Your task to perform on an android device: open app "WhatsApp Messenger" (install if not already installed) and go to login screen Image 0: 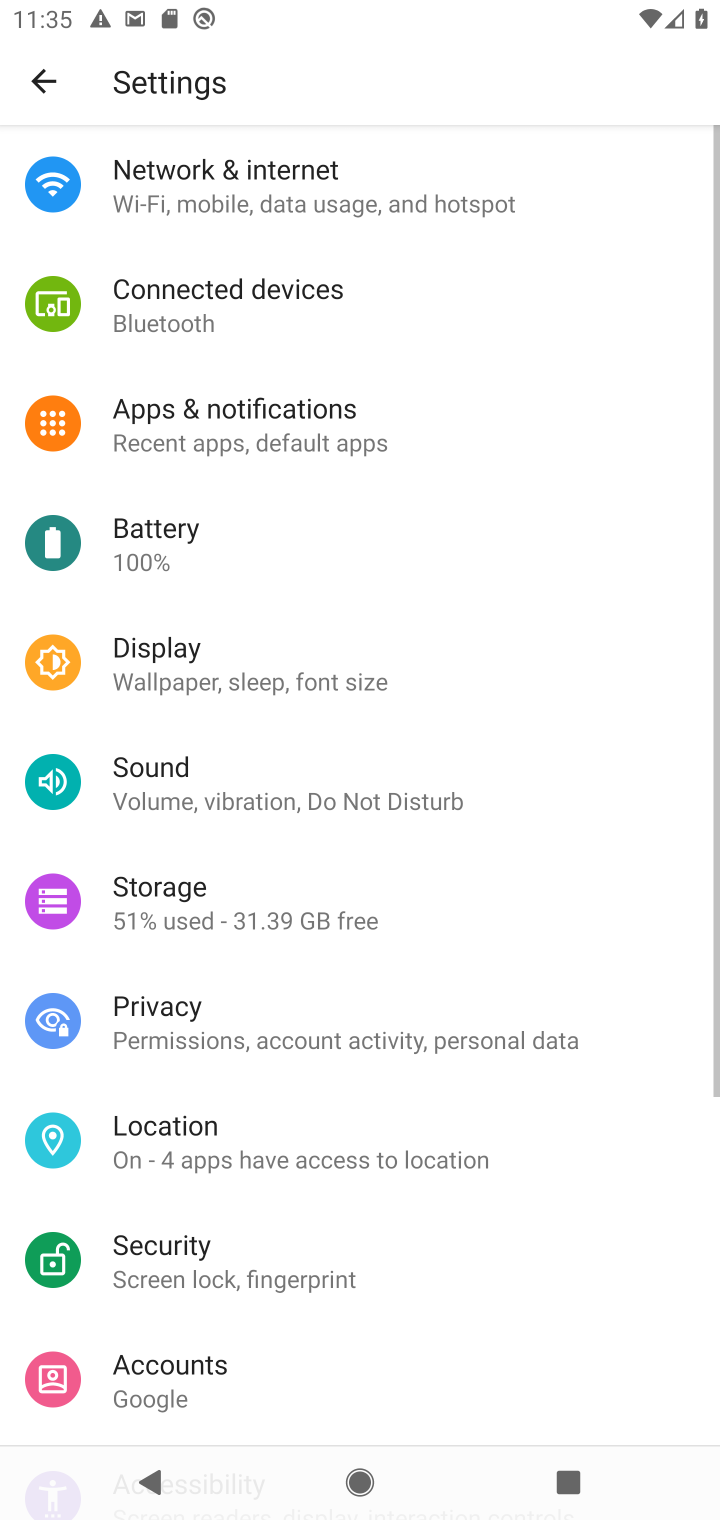
Step 0: press home button
Your task to perform on an android device: open app "WhatsApp Messenger" (install if not already installed) and go to login screen Image 1: 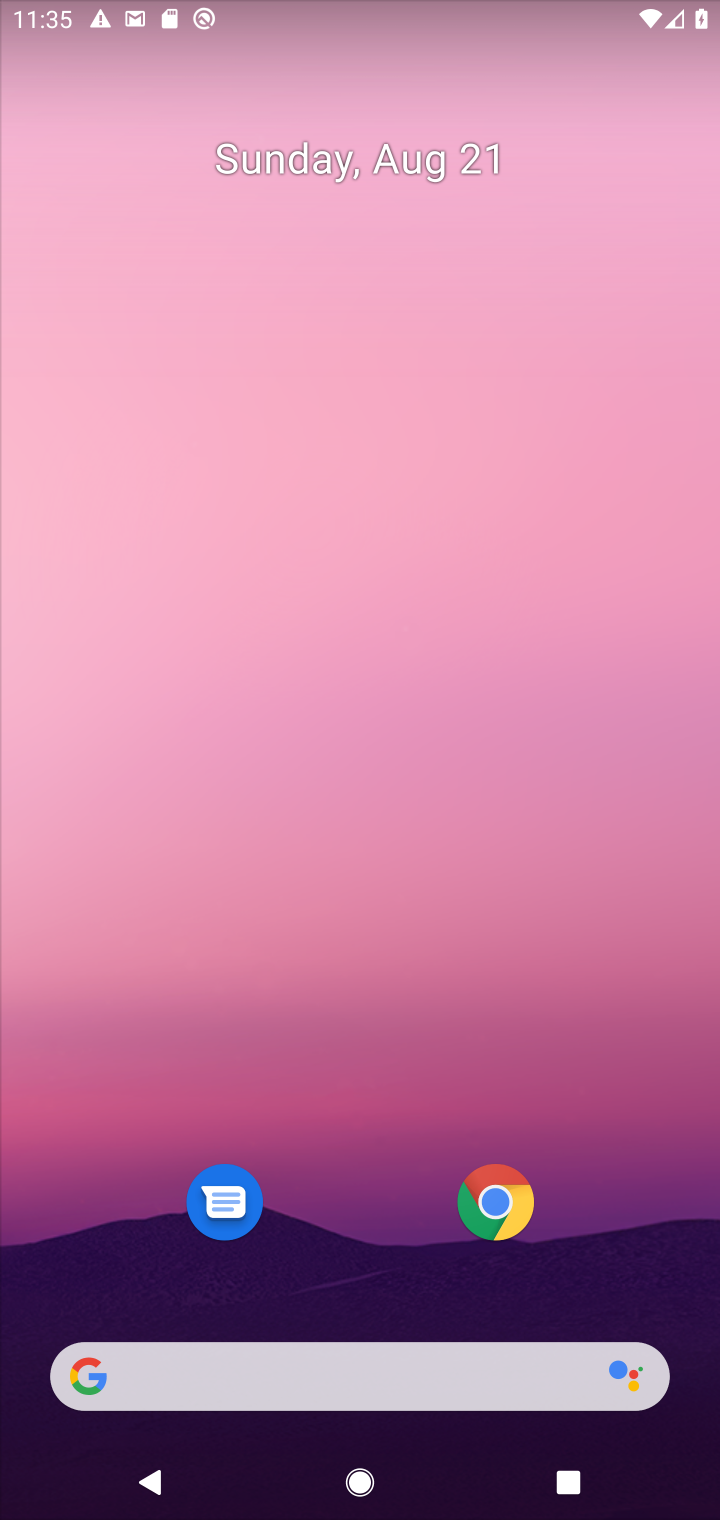
Step 1: drag from (349, 1153) to (357, 257)
Your task to perform on an android device: open app "WhatsApp Messenger" (install if not already installed) and go to login screen Image 2: 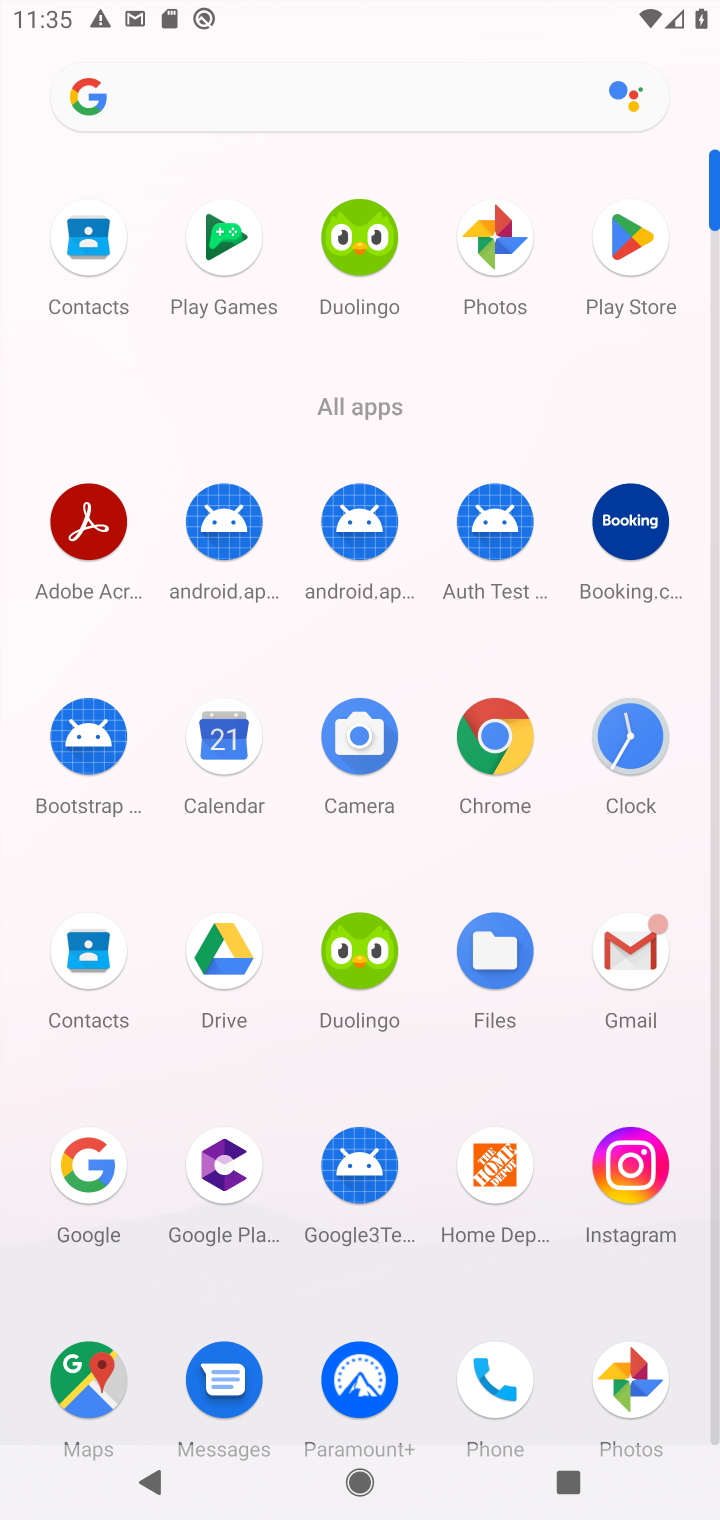
Step 2: click (625, 240)
Your task to perform on an android device: open app "WhatsApp Messenger" (install if not already installed) and go to login screen Image 3: 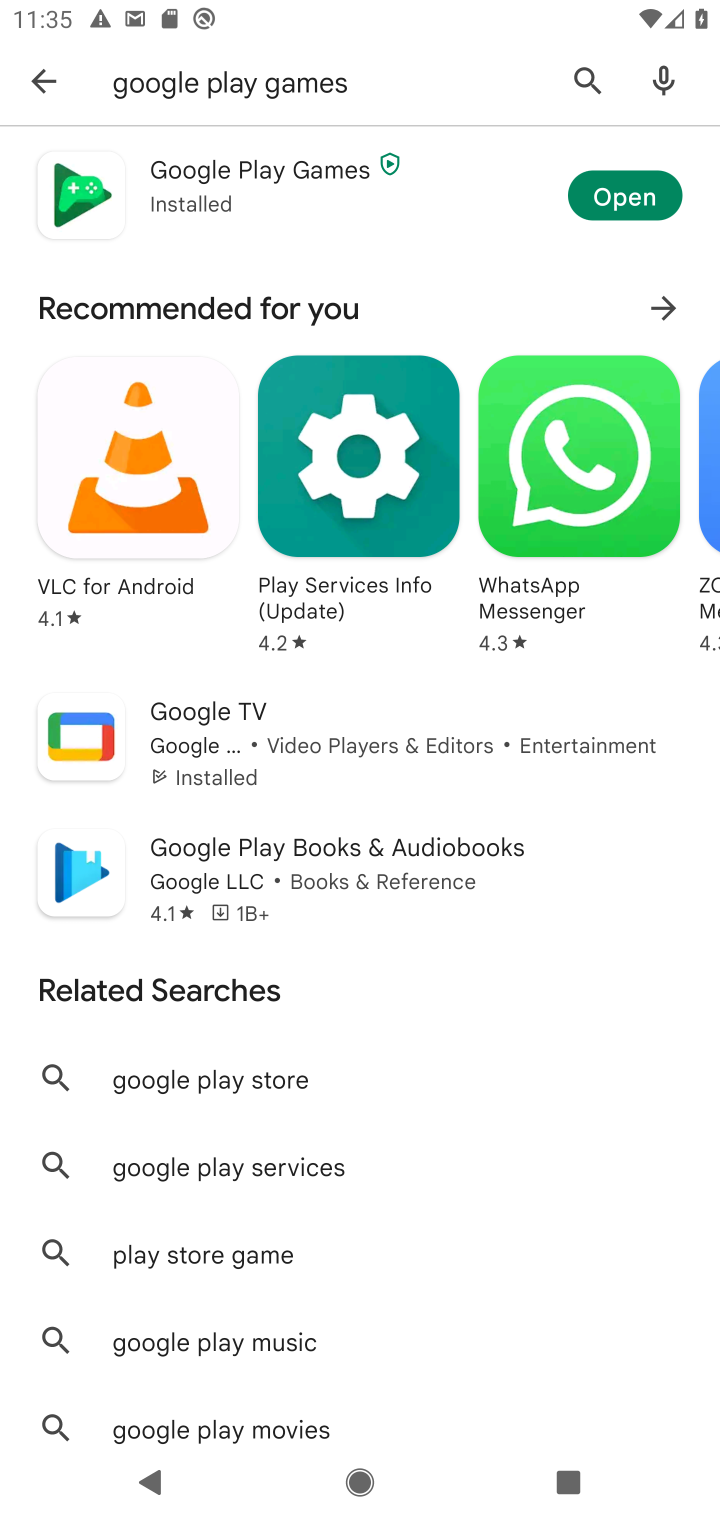
Step 3: click (579, 74)
Your task to perform on an android device: open app "WhatsApp Messenger" (install if not already installed) and go to login screen Image 4: 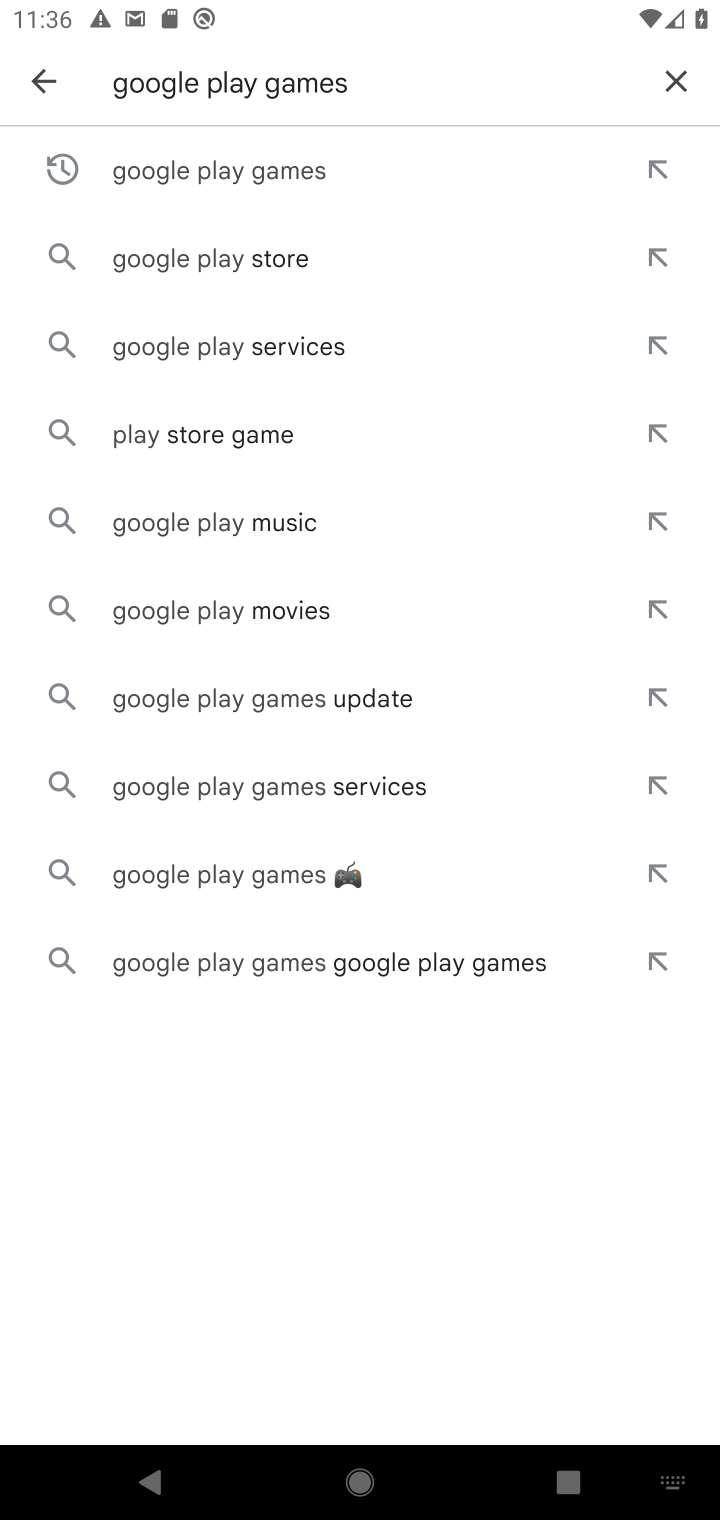
Step 4: click (672, 80)
Your task to perform on an android device: open app "WhatsApp Messenger" (install if not already installed) and go to login screen Image 5: 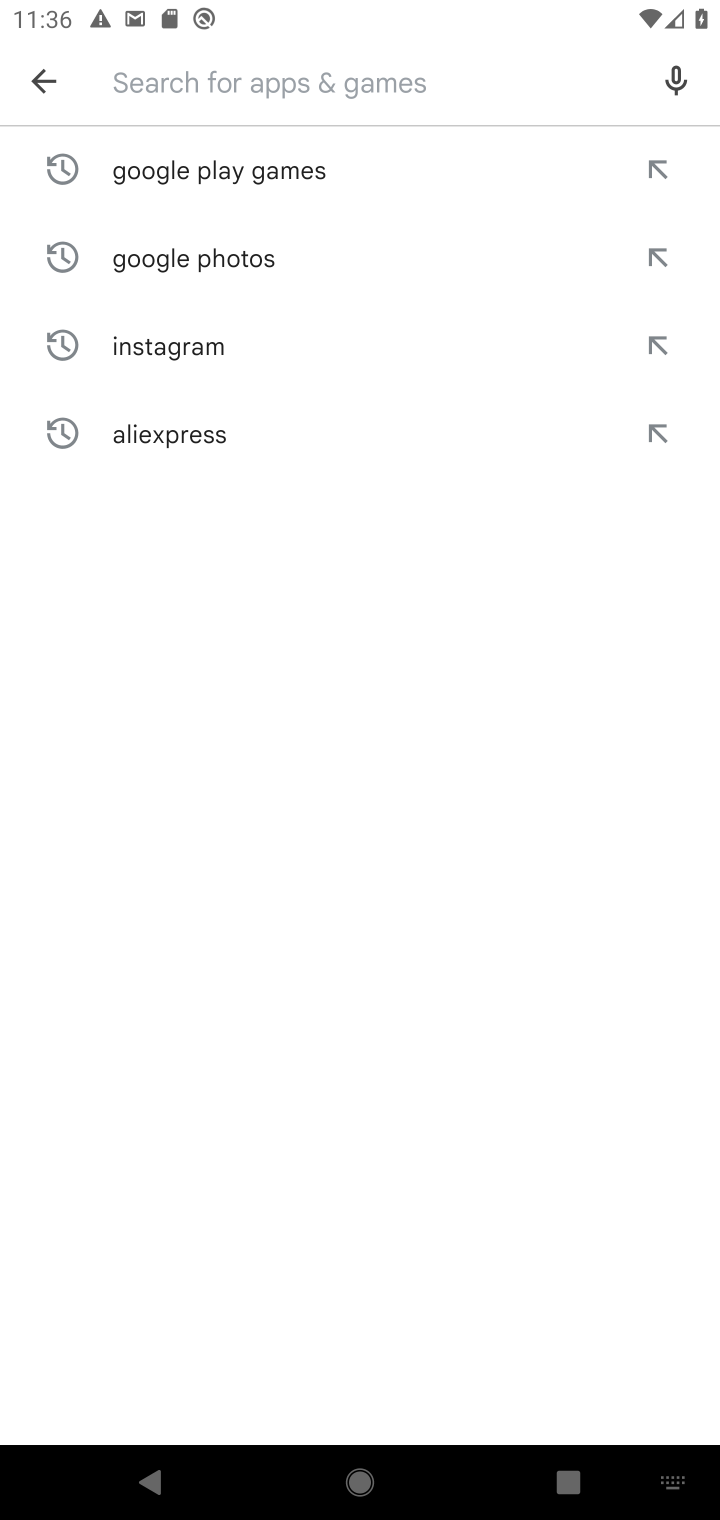
Step 5: type "WhatsApp Messenger"
Your task to perform on an android device: open app "WhatsApp Messenger" (install if not already installed) and go to login screen Image 6: 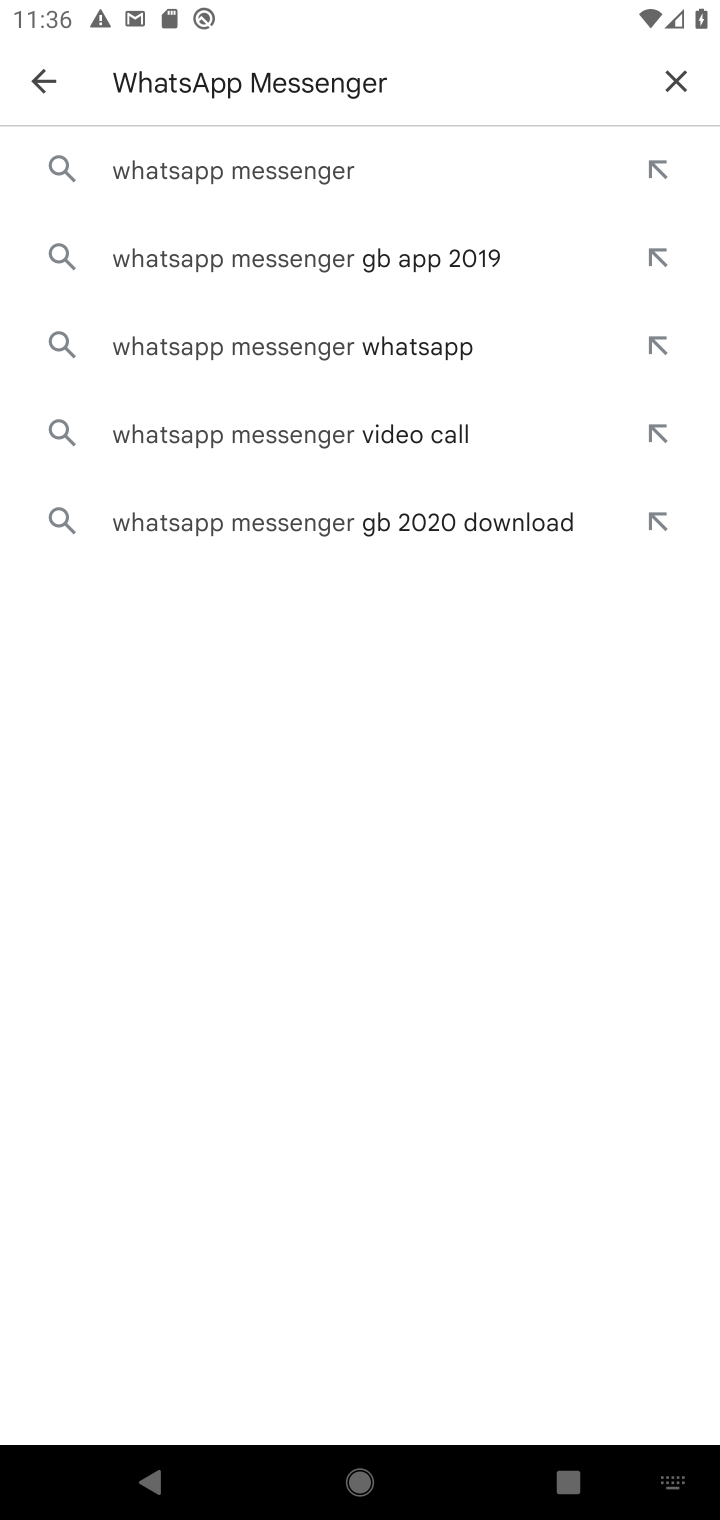
Step 6: click (240, 167)
Your task to perform on an android device: open app "WhatsApp Messenger" (install if not already installed) and go to login screen Image 7: 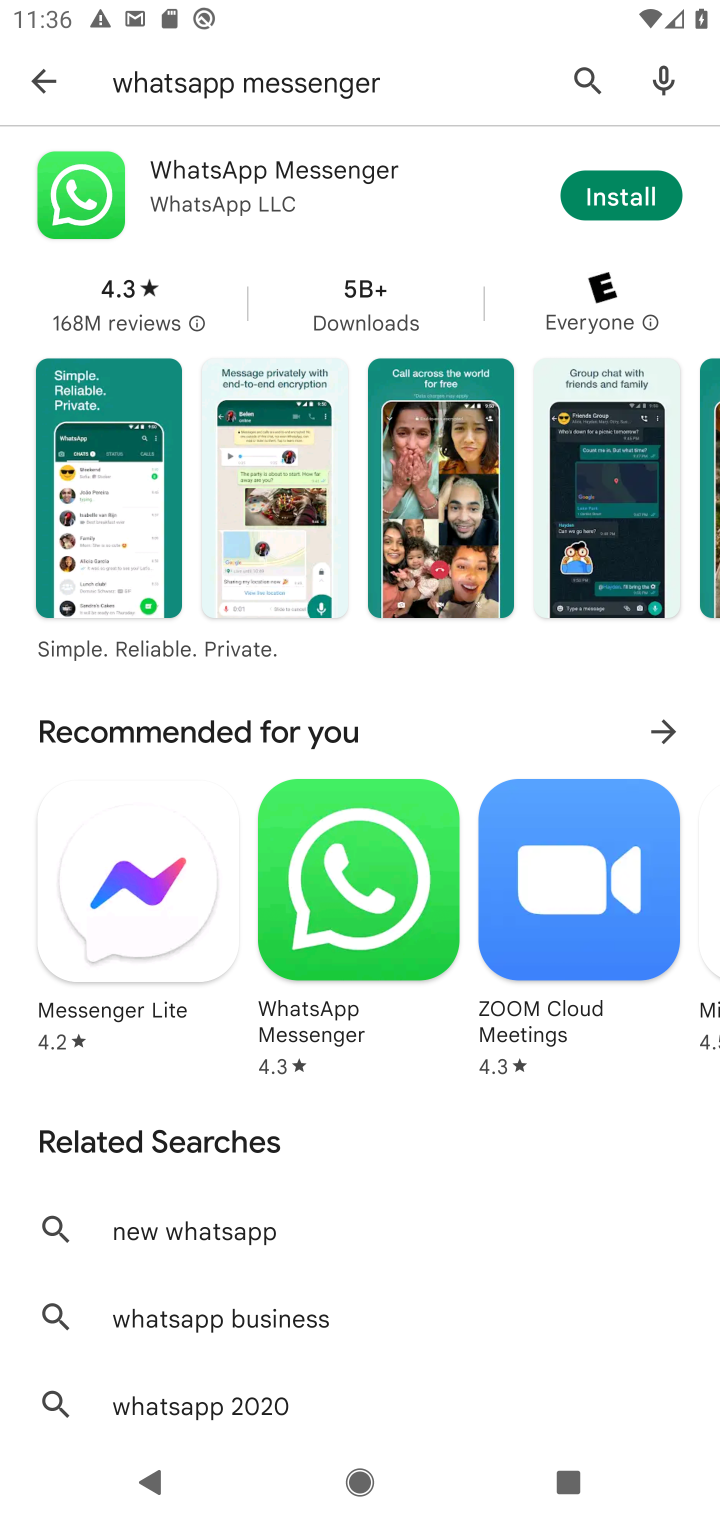
Step 7: click (602, 193)
Your task to perform on an android device: open app "WhatsApp Messenger" (install if not already installed) and go to login screen Image 8: 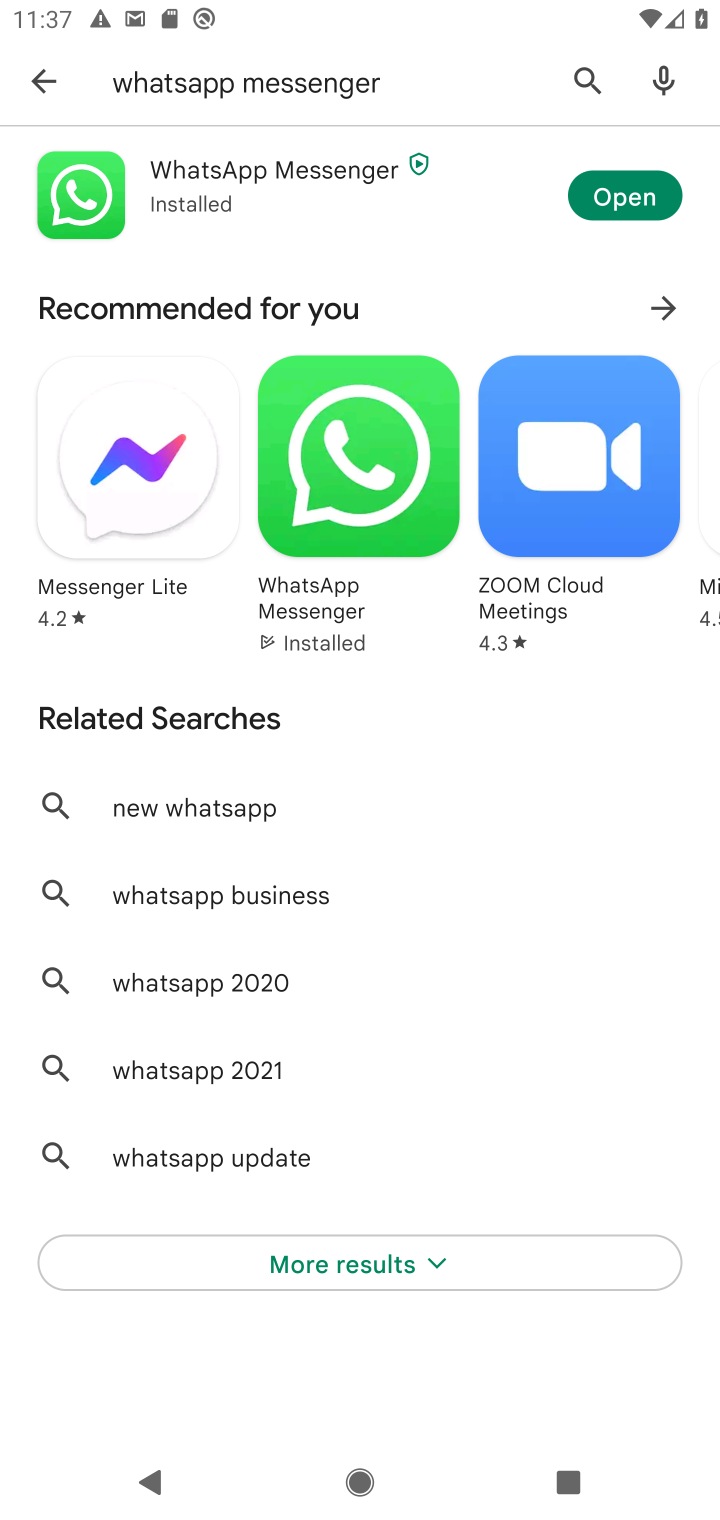
Step 8: click (602, 197)
Your task to perform on an android device: open app "WhatsApp Messenger" (install if not already installed) and go to login screen Image 9: 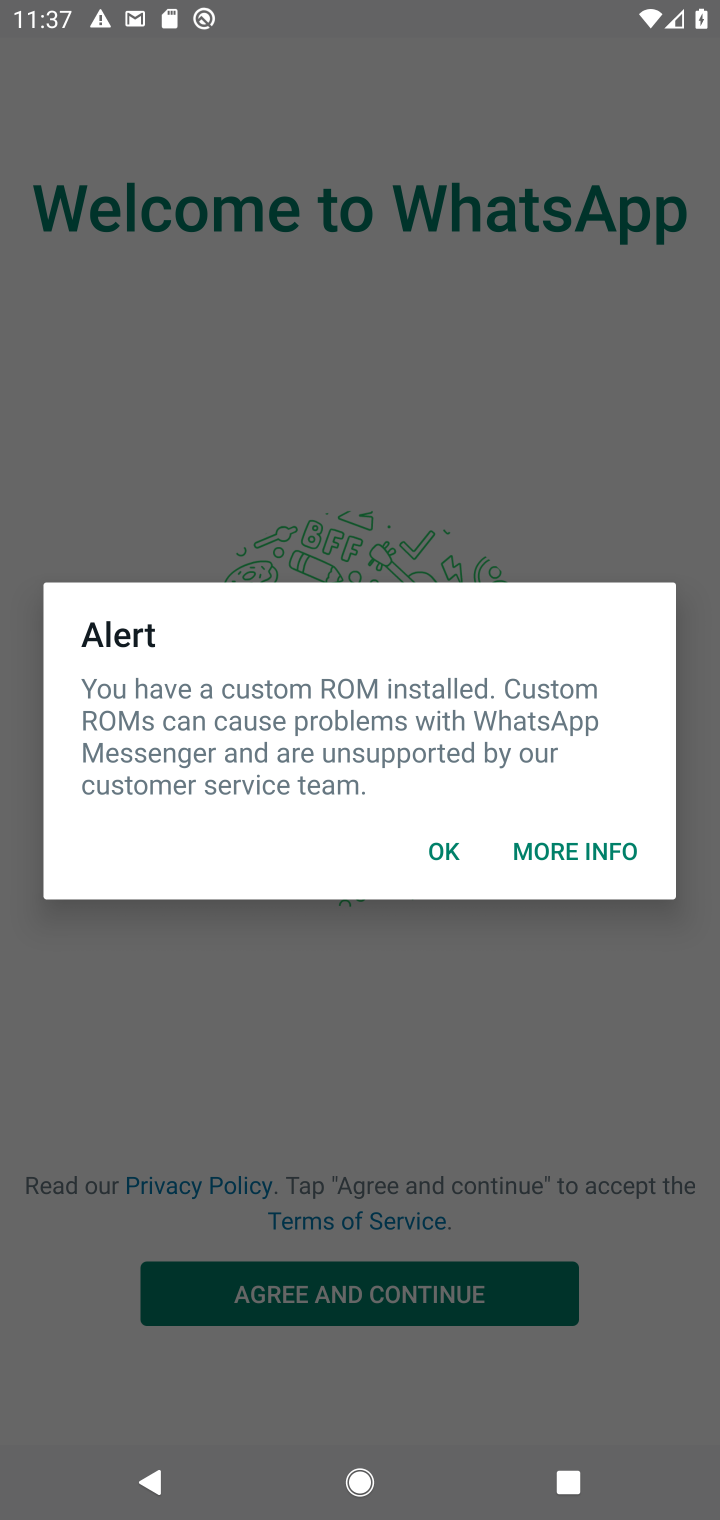
Step 9: click (442, 845)
Your task to perform on an android device: open app "WhatsApp Messenger" (install if not already installed) and go to login screen Image 10: 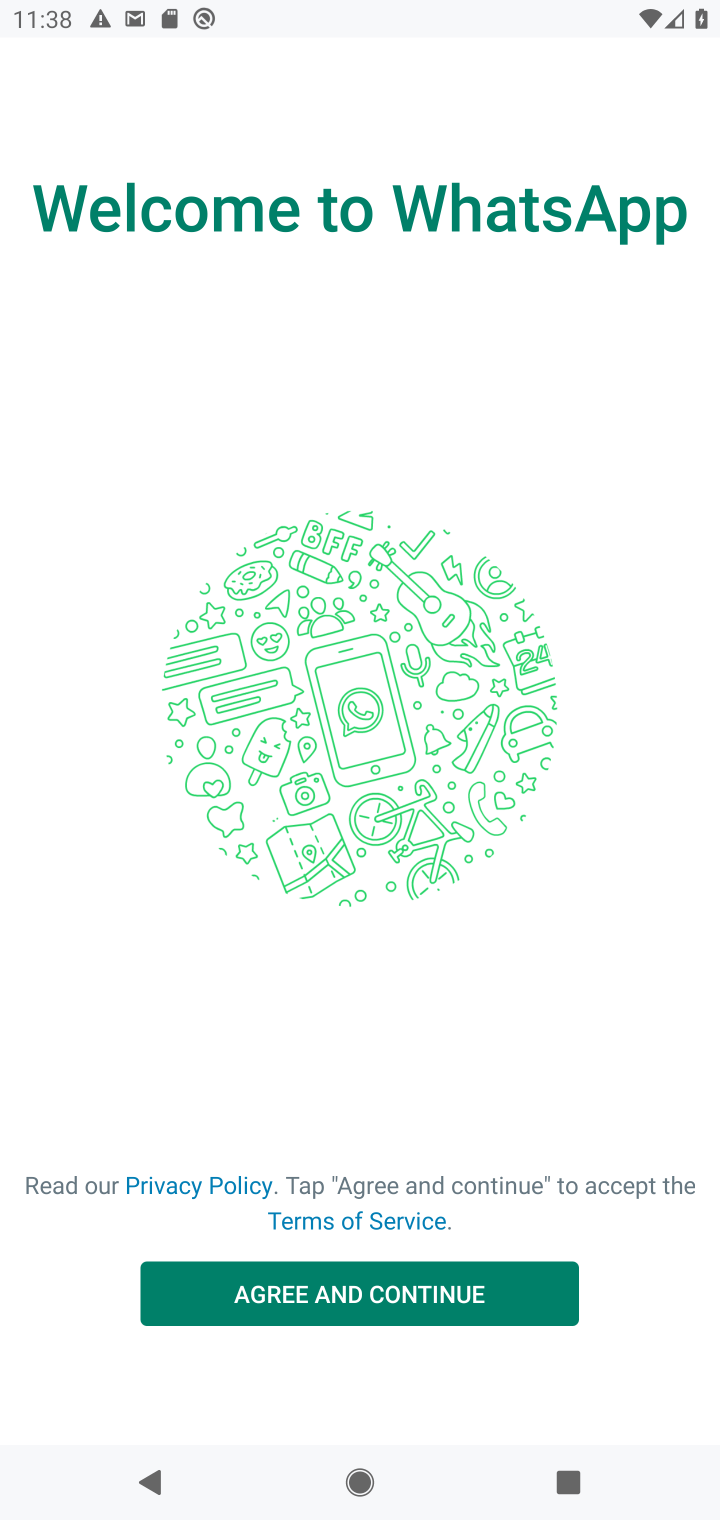
Step 10: task complete